Your task to perform on an android device: Turn on the flashlight Image 0: 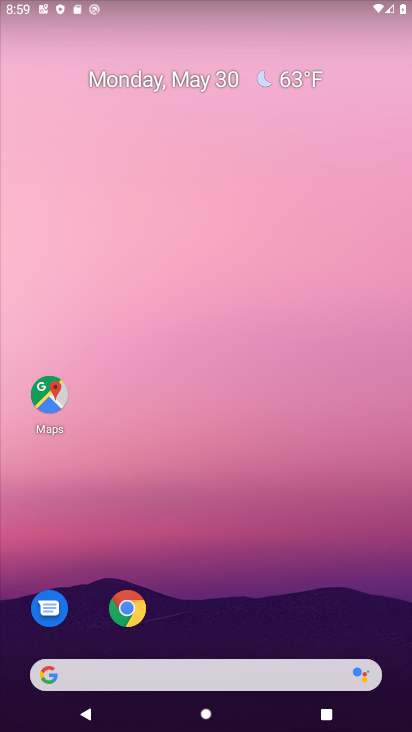
Step 0: click (309, 76)
Your task to perform on an android device: Turn on the flashlight Image 1: 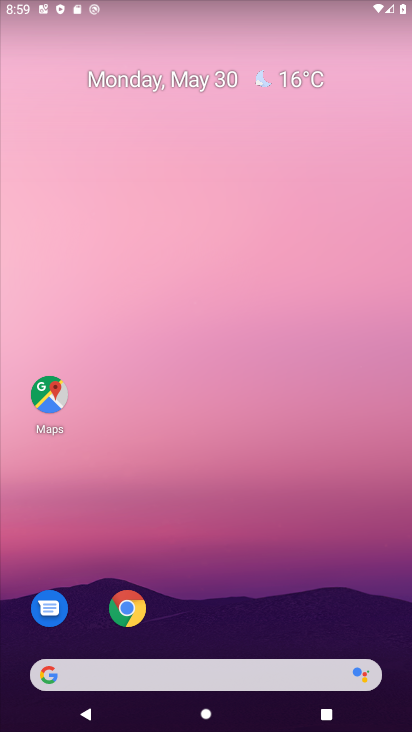
Step 1: drag from (394, 700) to (294, 94)
Your task to perform on an android device: Turn on the flashlight Image 2: 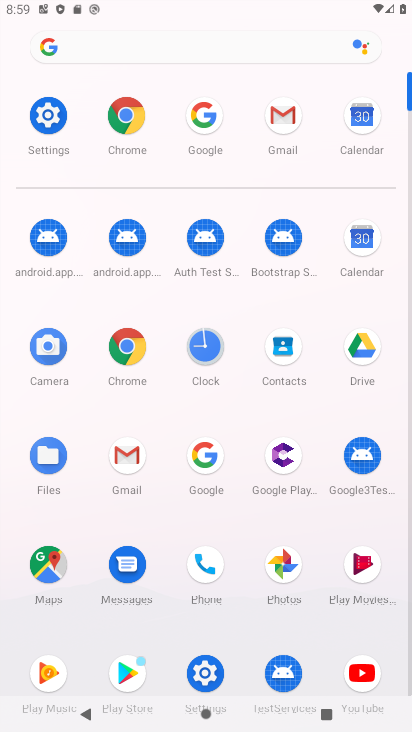
Step 2: click (56, 115)
Your task to perform on an android device: Turn on the flashlight Image 3: 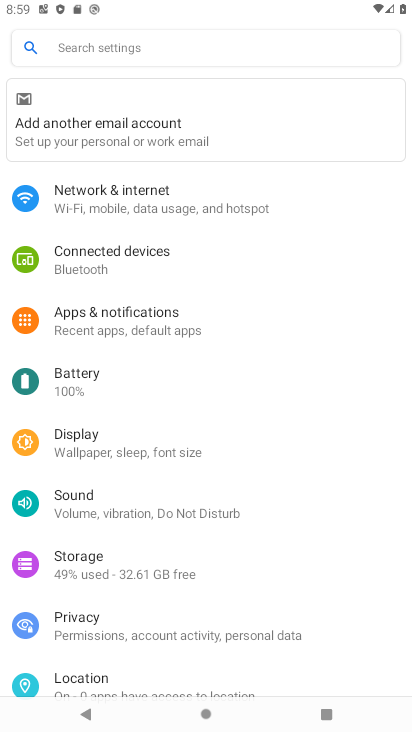
Step 3: click (105, 359)
Your task to perform on an android device: Turn on the flashlight Image 4: 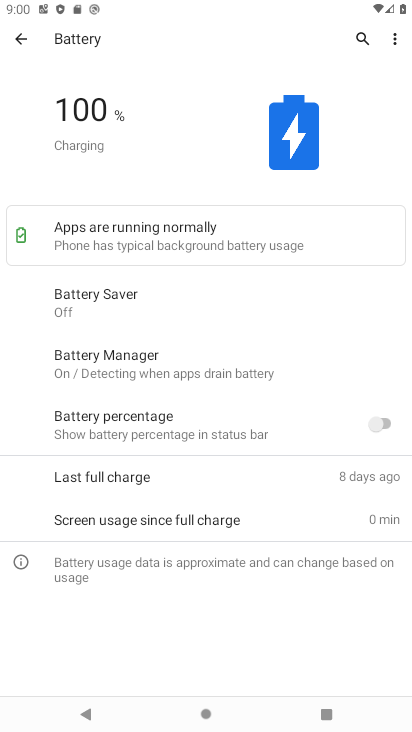
Step 4: task complete